Your task to perform on an android device: Show me the alarms in the clock app Image 0: 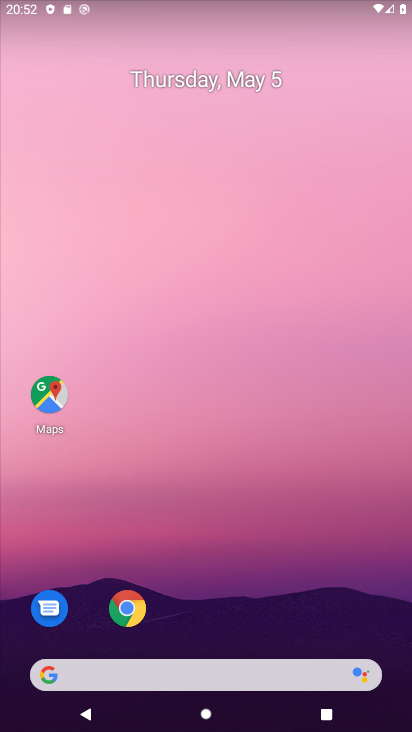
Step 0: drag from (294, 651) to (377, 4)
Your task to perform on an android device: Show me the alarms in the clock app Image 1: 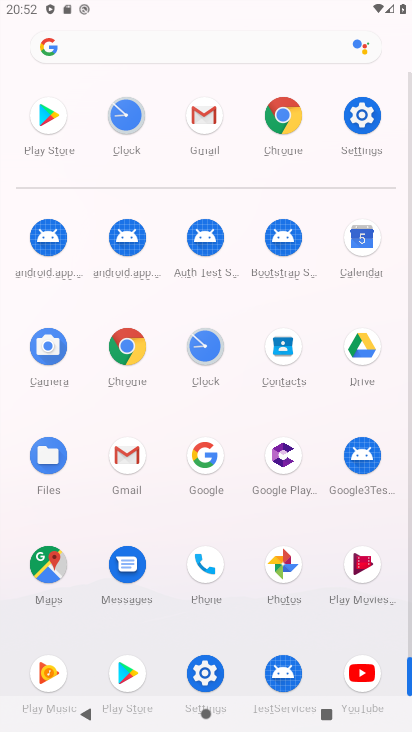
Step 1: click (209, 355)
Your task to perform on an android device: Show me the alarms in the clock app Image 2: 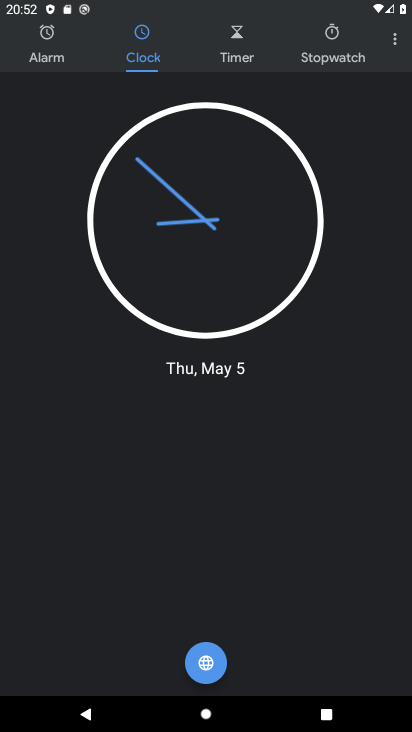
Step 2: click (41, 43)
Your task to perform on an android device: Show me the alarms in the clock app Image 3: 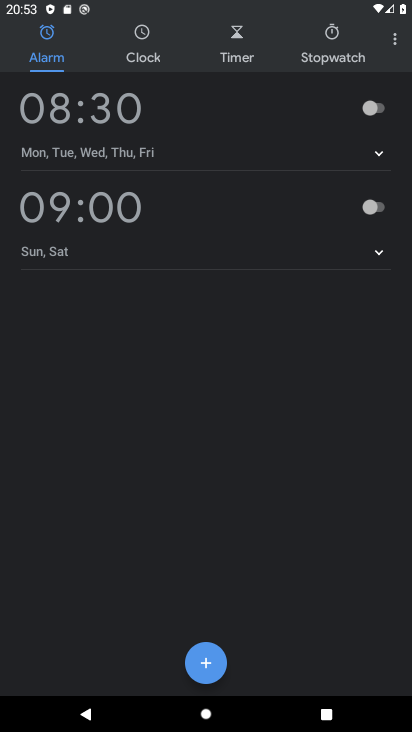
Step 3: task complete